Your task to perform on an android device: Go to sound settings Image 0: 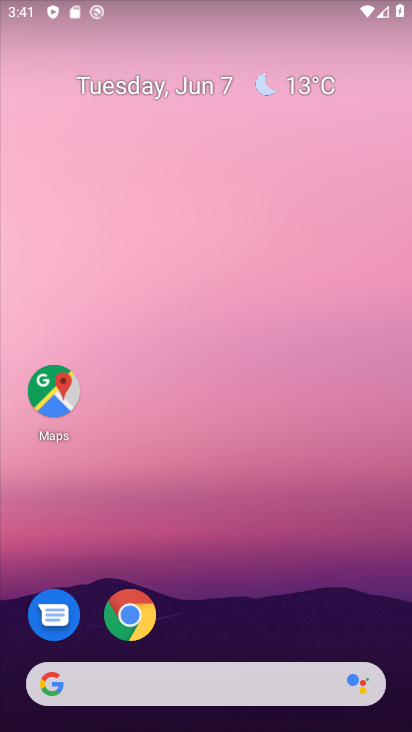
Step 0: drag from (244, 721) to (222, 32)
Your task to perform on an android device: Go to sound settings Image 1: 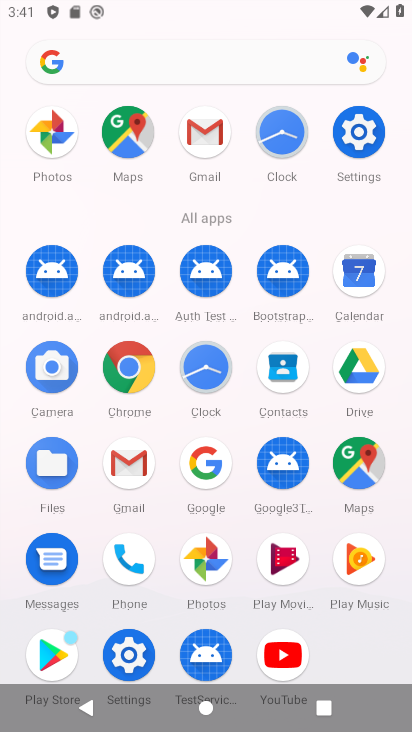
Step 1: click (349, 134)
Your task to perform on an android device: Go to sound settings Image 2: 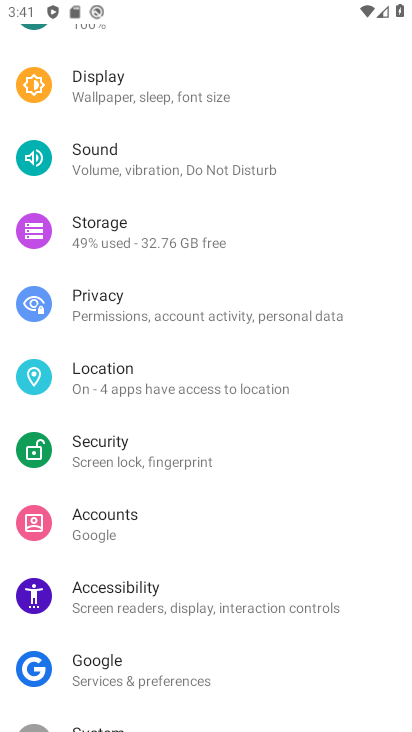
Step 2: click (129, 160)
Your task to perform on an android device: Go to sound settings Image 3: 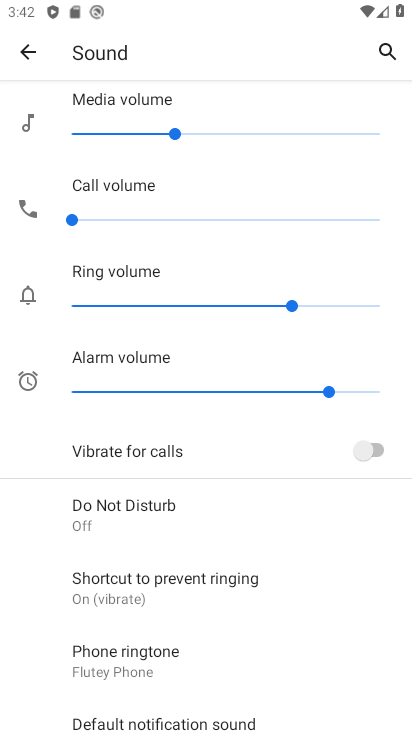
Step 3: task complete